Your task to perform on an android device: Go to location settings Image 0: 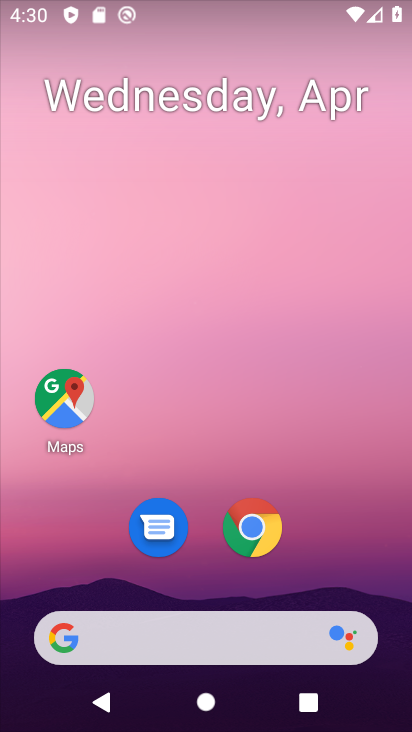
Step 0: drag from (378, 585) to (388, 47)
Your task to perform on an android device: Go to location settings Image 1: 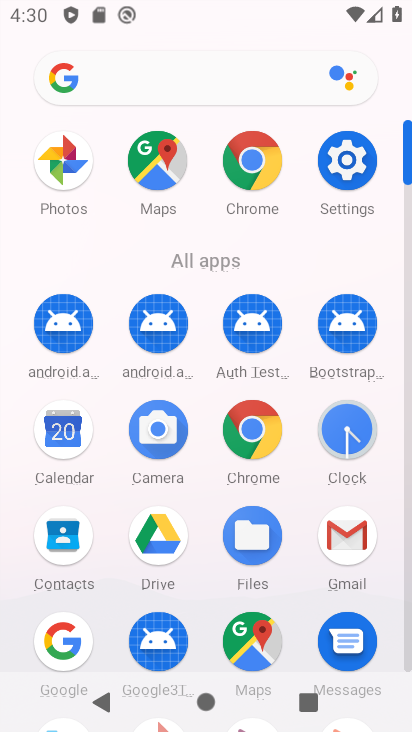
Step 1: click (349, 174)
Your task to perform on an android device: Go to location settings Image 2: 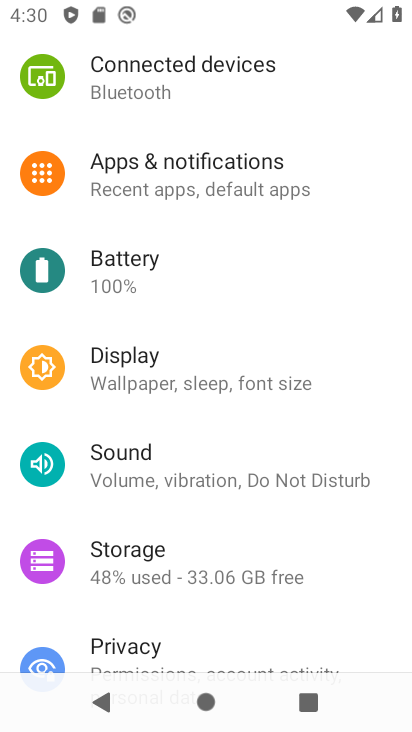
Step 2: drag from (317, 596) to (294, 248)
Your task to perform on an android device: Go to location settings Image 3: 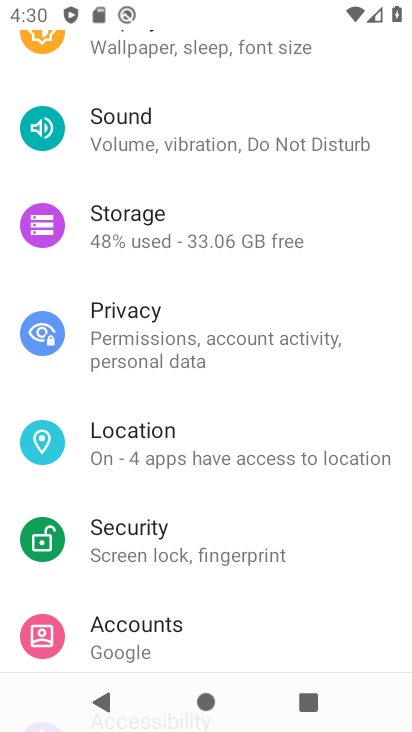
Step 3: click (145, 448)
Your task to perform on an android device: Go to location settings Image 4: 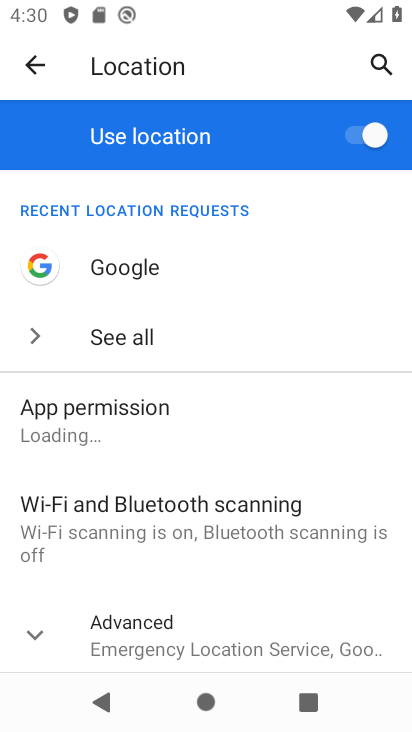
Step 4: task complete